Your task to perform on an android device: Open Youtube and go to the subscriptions tab Image 0: 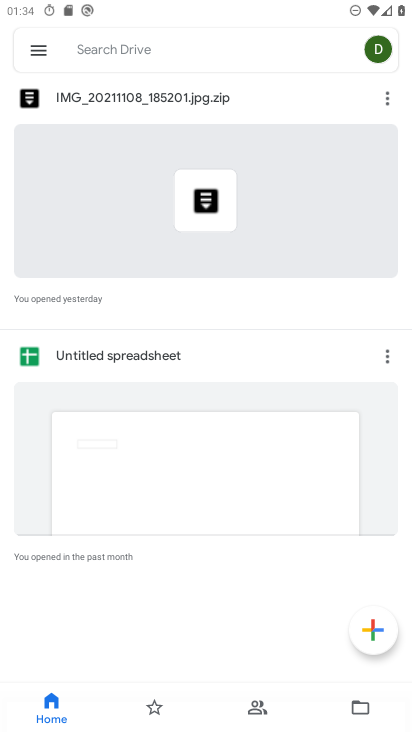
Step 0: press home button
Your task to perform on an android device: Open Youtube and go to the subscriptions tab Image 1: 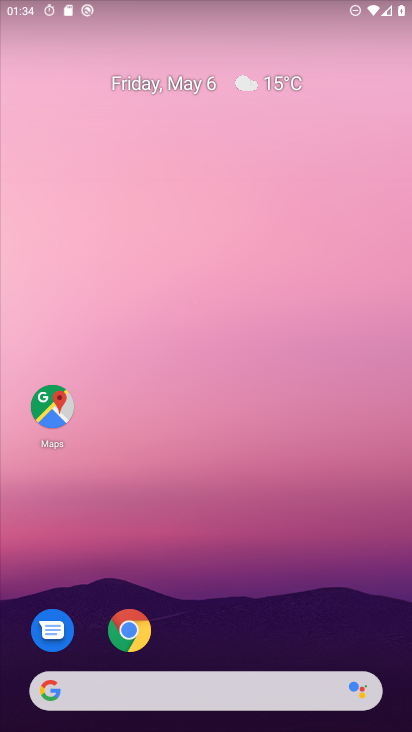
Step 1: drag from (326, 619) to (311, 108)
Your task to perform on an android device: Open Youtube and go to the subscriptions tab Image 2: 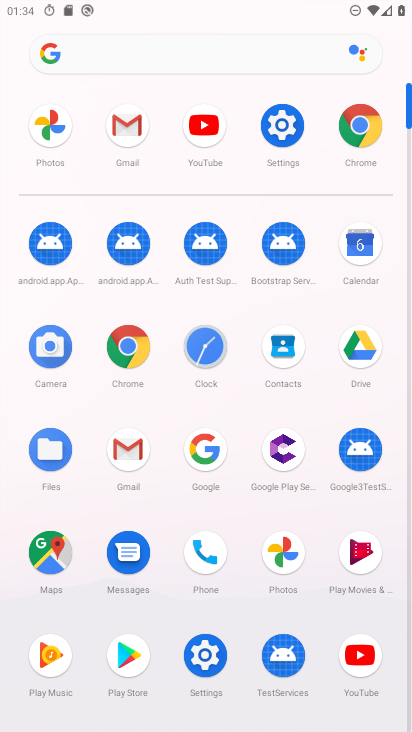
Step 2: click (213, 125)
Your task to perform on an android device: Open Youtube and go to the subscriptions tab Image 3: 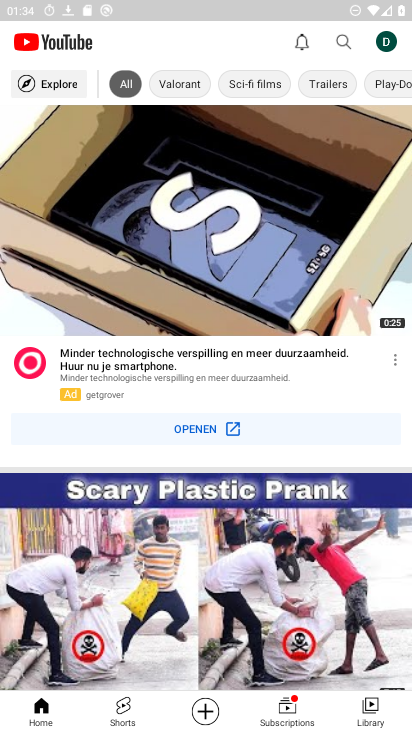
Step 3: click (301, 708)
Your task to perform on an android device: Open Youtube and go to the subscriptions tab Image 4: 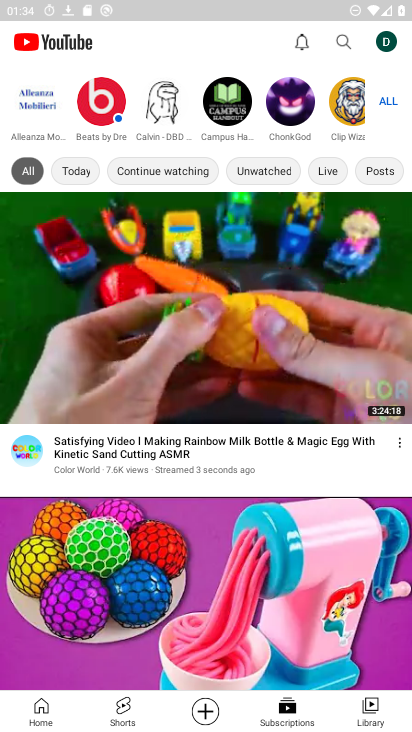
Step 4: task complete